Your task to perform on an android device: Open internet settings Image 0: 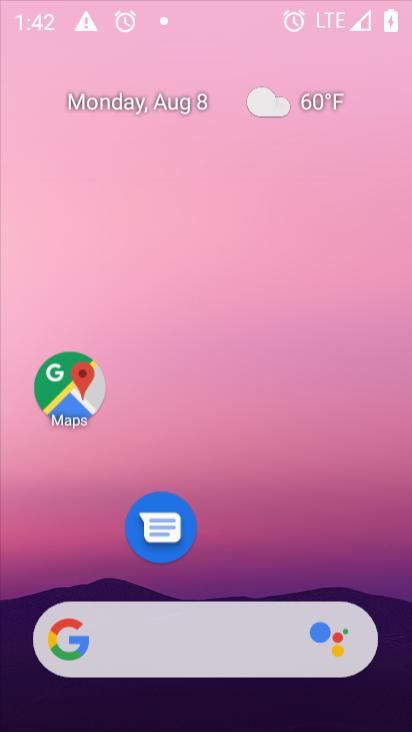
Step 0: click (395, 251)
Your task to perform on an android device: Open internet settings Image 1: 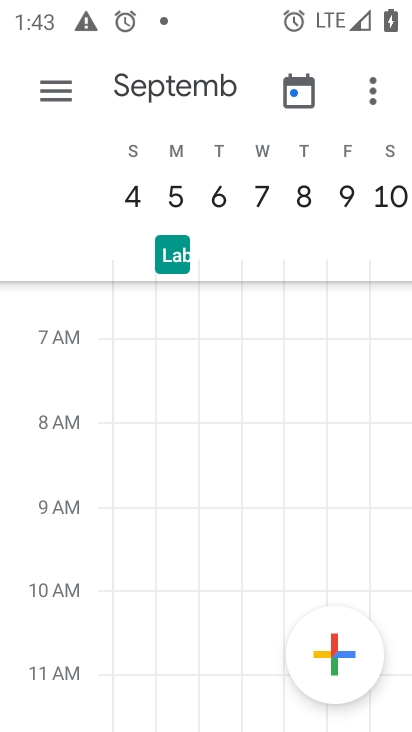
Step 1: press home button
Your task to perform on an android device: Open internet settings Image 2: 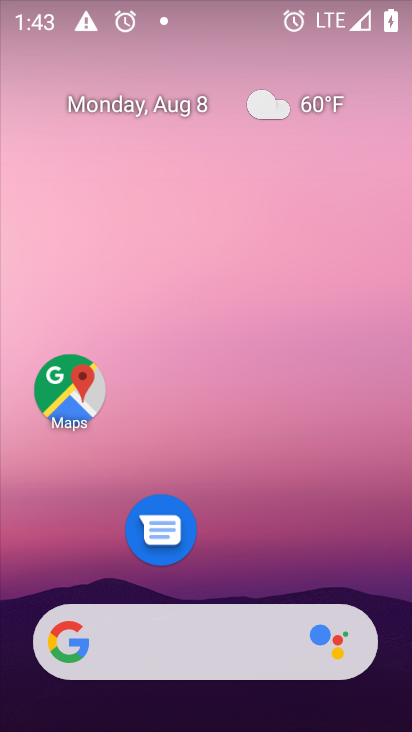
Step 2: drag from (242, 587) to (239, 147)
Your task to perform on an android device: Open internet settings Image 3: 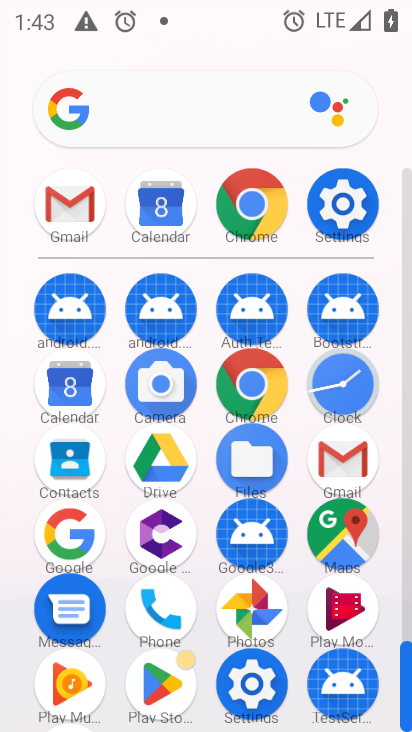
Step 3: click (341, 201)
Your task to perform on an android device: Open internet settings Image 4: 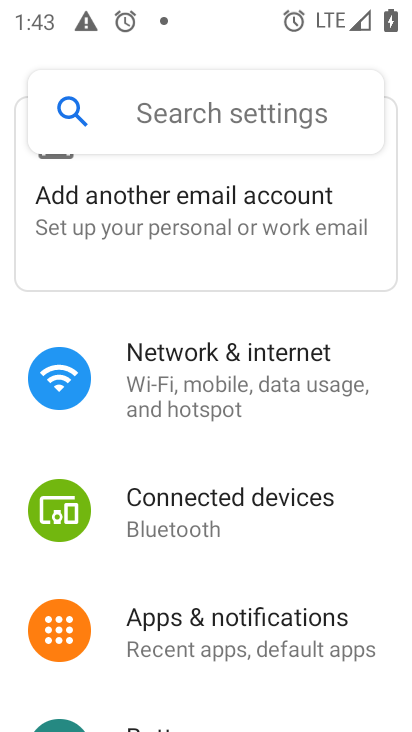
Step 4: click (191, 390)
Your task to perform on an android device: Open internet settings Image 5: 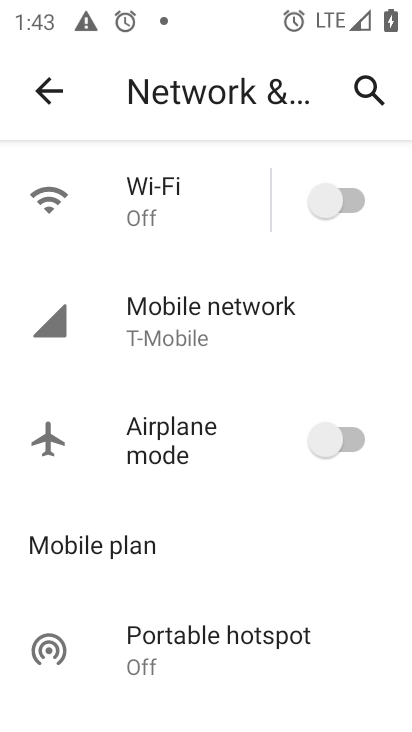
Step 5: task complete